Your task to perform on an android device: Open accessibility settings Image 0: 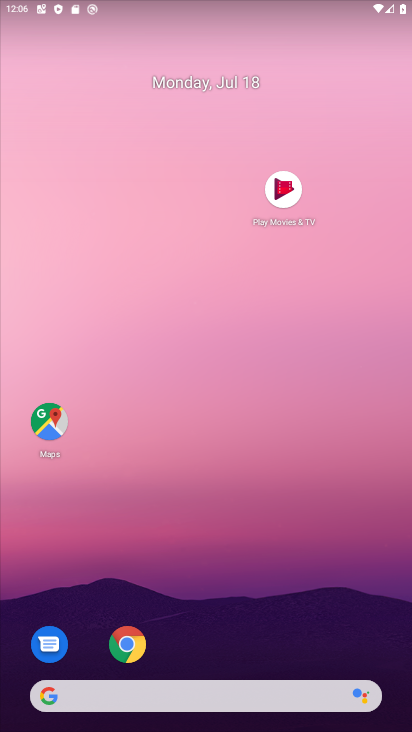
Step 0: drag from (303, 621) to (238, 145)
Your task to perform on an android device: Open accessibility settings Image 1: 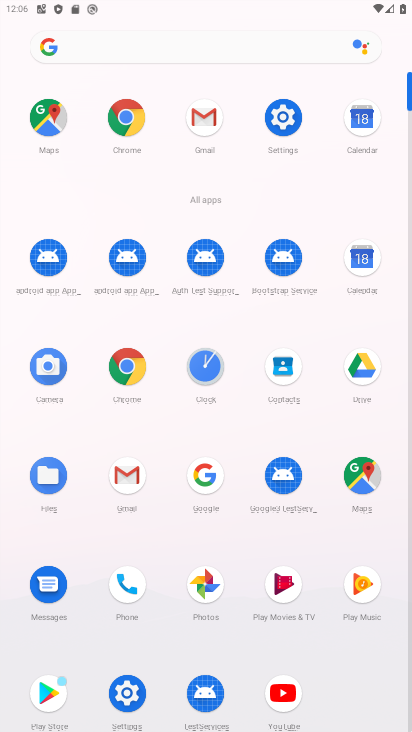
Step 1: click (289, 131)
Your task to perform on an android device: Open accessibility settings Image 2: 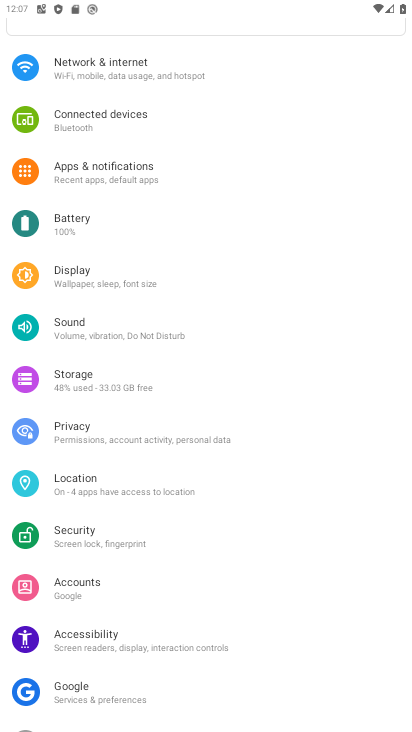
Step 2: click (181, 651)
Your task to perform on an android device: Open accessibility settings Image 3: 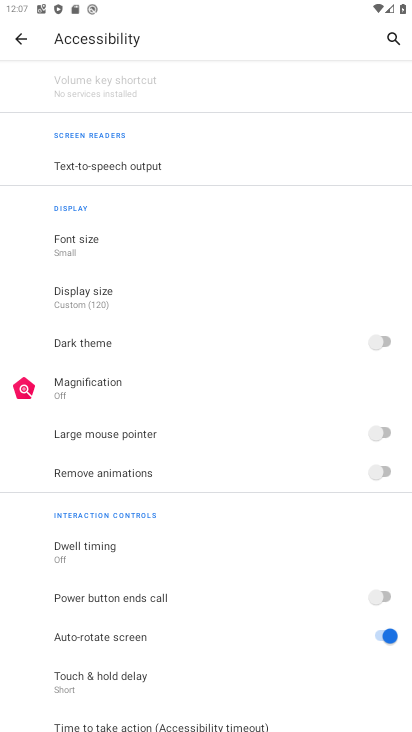
Step 3: task complete